Your task to perform on an android device: Open privacy settings Image 0: 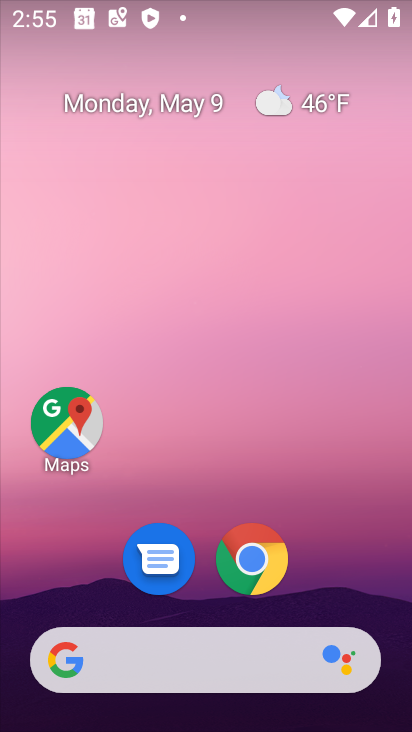
Step 0: drag from (338, 549) to (319, 214)
Your task to perform on an android device: Open privacy settings Image 1: 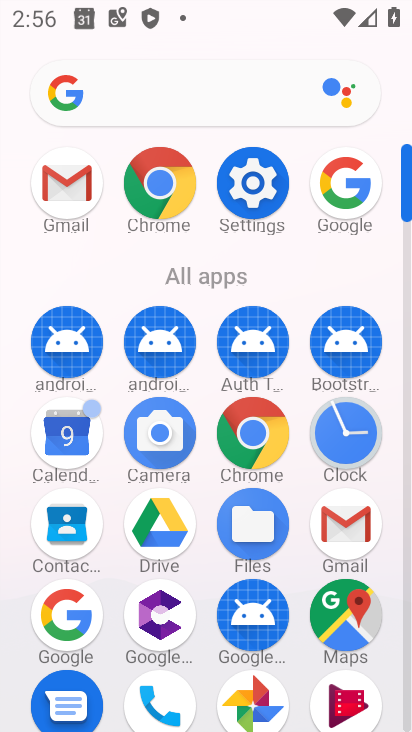
Step 1: click (240, 189)
Your task to perform on an android device: Open privacy settings Image 2: 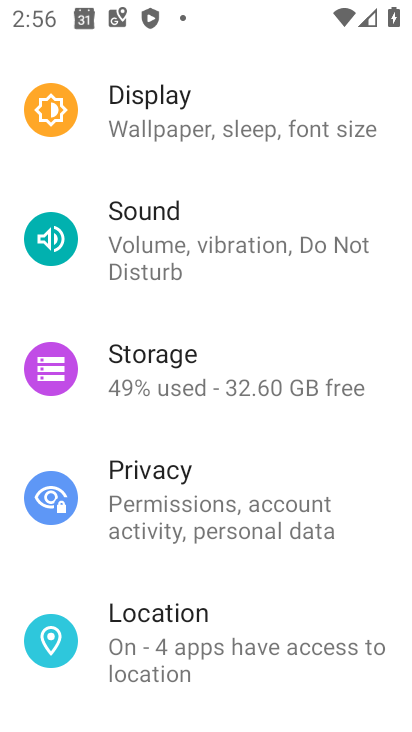
Step 2: click (263, 486)
Your task to perform on an android device: Open privacy settings Image 3: 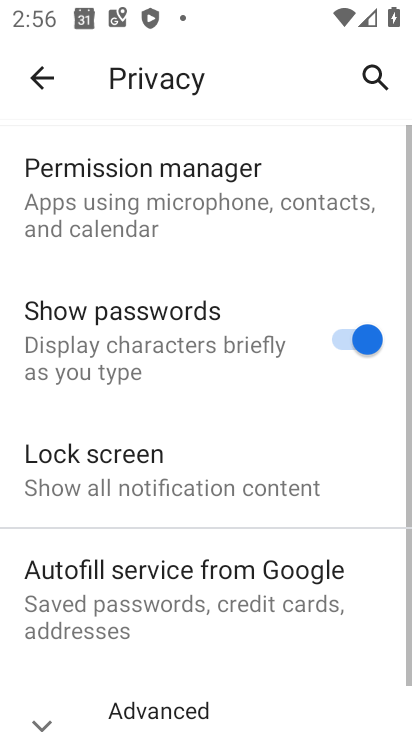
Step 3: task complete